Your task to perform on an android device: Go to network settings Image 0: 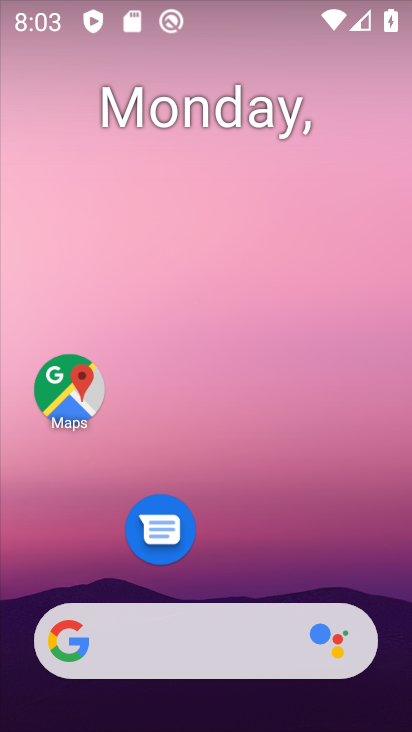
Step 0: drag from (221, 577) to (232, 131)
Your task to perform on an android device: Go to network settings Image 1: 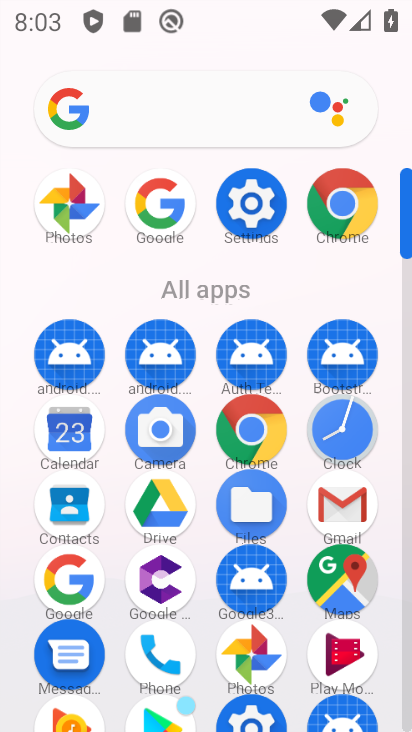
Step 1: click (241, 176)
Your task to perform on an android device: Go to network settings Image 2: 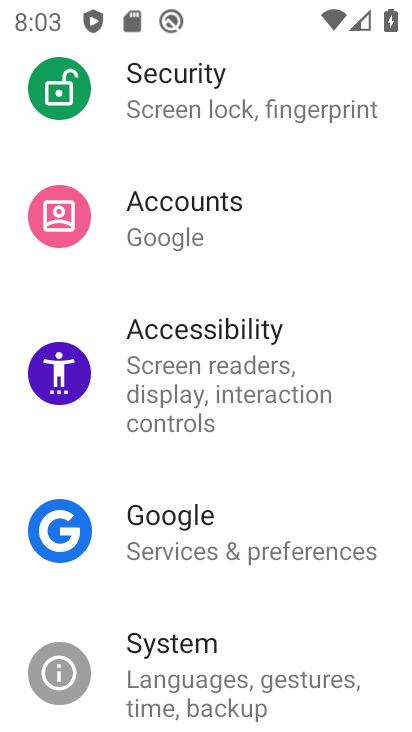
Step 2: drag from (241, 188) to (243, 572)
Your task to perform on an android device: Go to network settings Image 3: 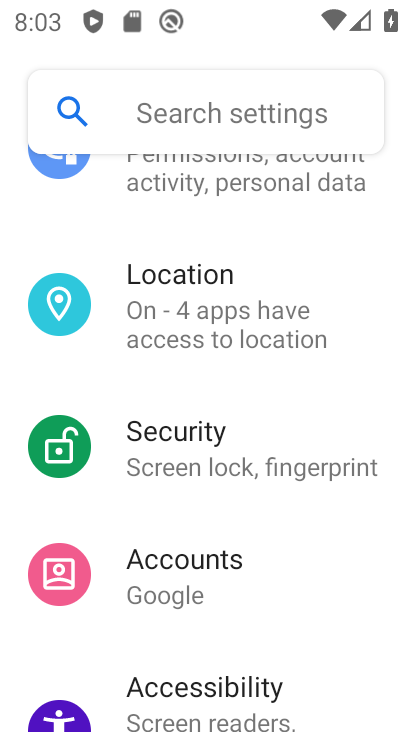
Step 3: drag from (209, 198) to (209, 476)
Your task to perform on an android device: Go to network settings Image 4: 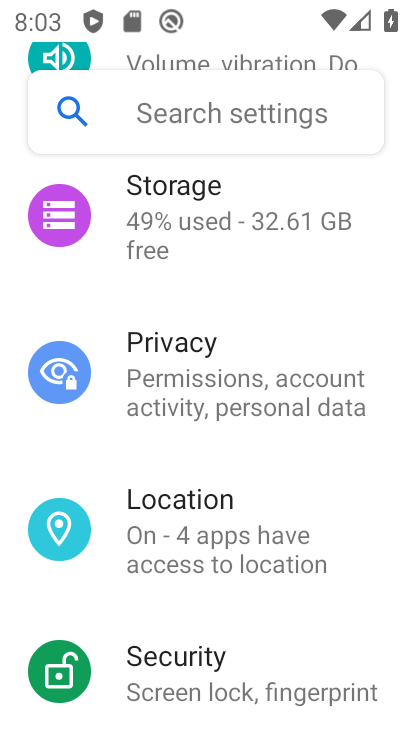
Step 4: drag from (210, 221) to (213, 544)
Your task to perform on an android device: Go to network settings Image 5: 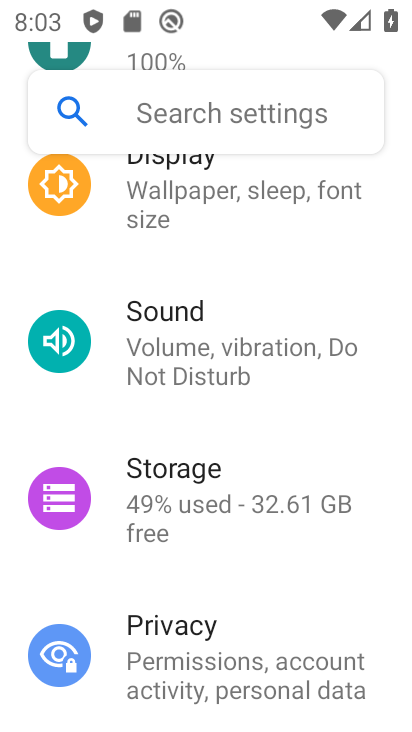
Step 5: drag from (225, 234) to (225, 585)
Your task to perform on an android device: Go to network settings Image 6: 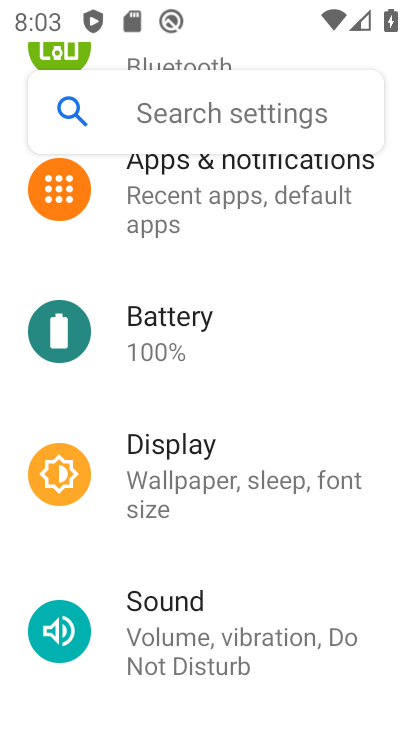
Step 6: drag from (202, 203) to (189, 555)
Your task to perform on an android device: Go to network settings Image 7: 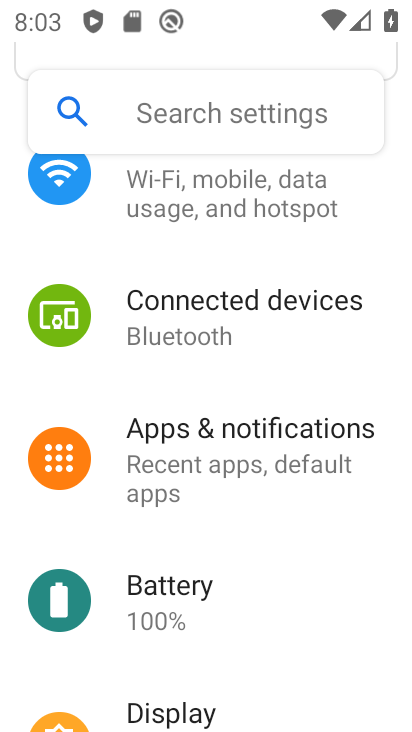
Step 7: click (220, 211)
Your task to perform on an android device: Go to network settings Image 8: 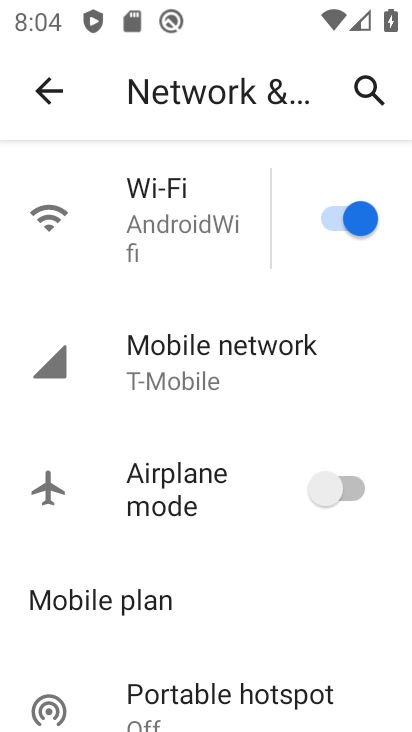
Step 8: click (172, 348)
Your task to perform on an android device: Go to network settings Image 9: 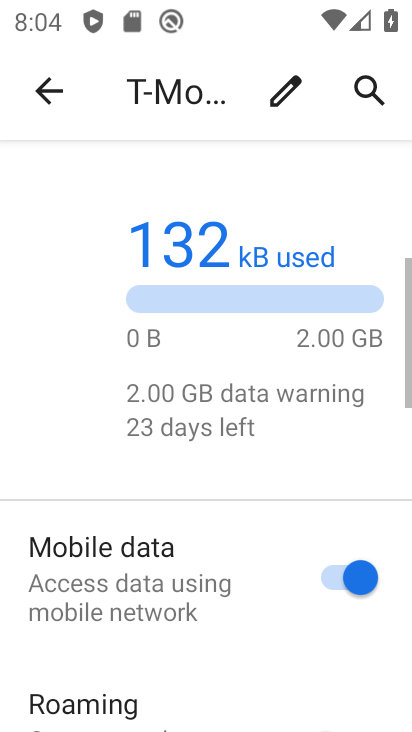
Step 9: task complete